Your task to perform on an android device: change notification settings in the gmail app Image 0: 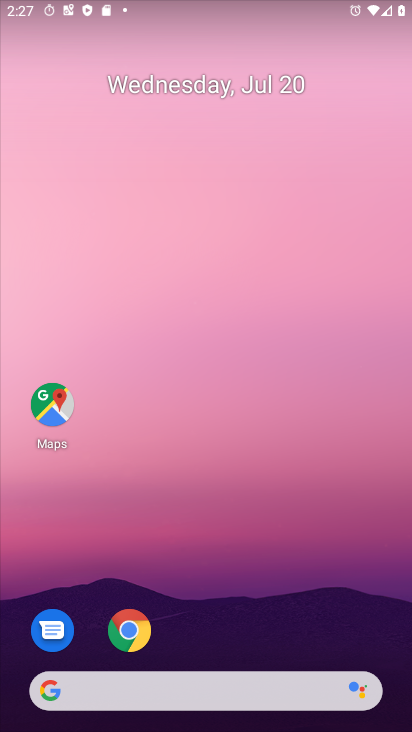
Step 0: press home button
Your task to perform on an android device: change notification settings in the gmail app Image 1: 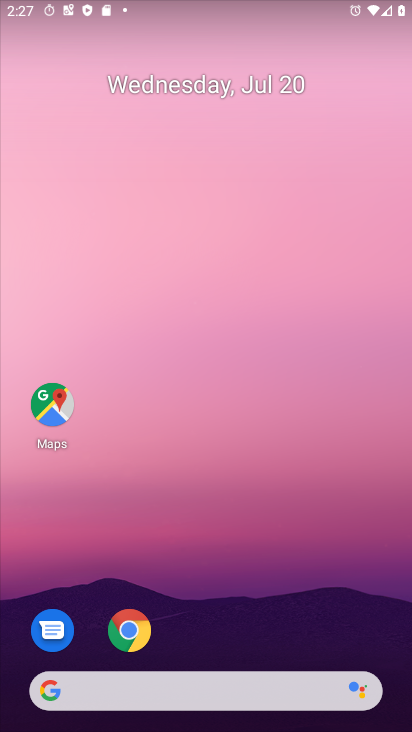
Step 1: drag from (263, 407) to (319, 165)
Your task to perform on an android device: change notification settings in the gmail app Image 2: 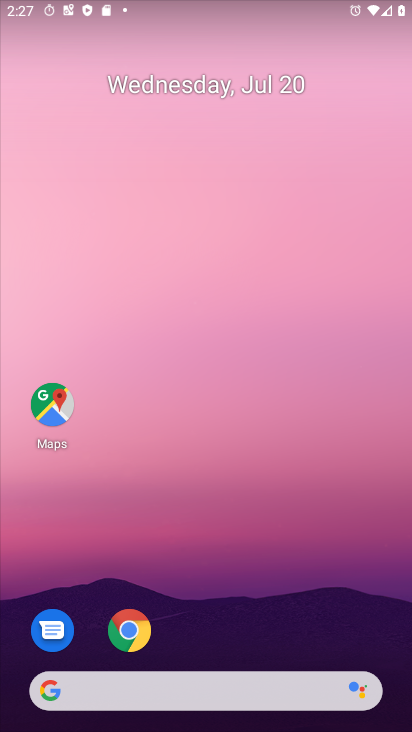
Step 2: drag from (154, 691) to (339, 191)
Your task to perform on an android device: change notification settings in the gmail app Image 3: 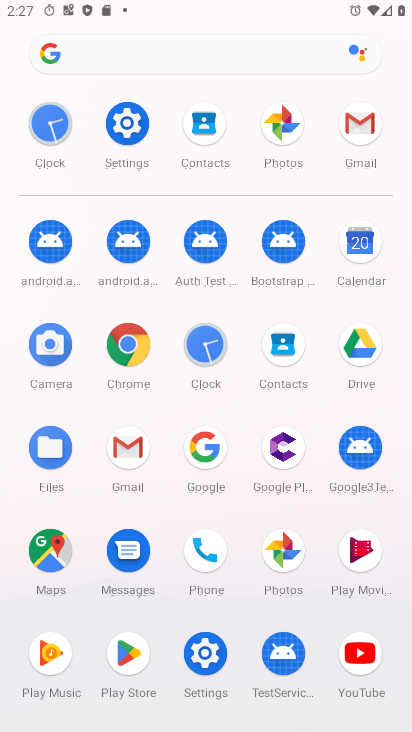
Step 3: click (361, 131)
Your task to perform on an android device: change notification settings in the gmail app Image 4: 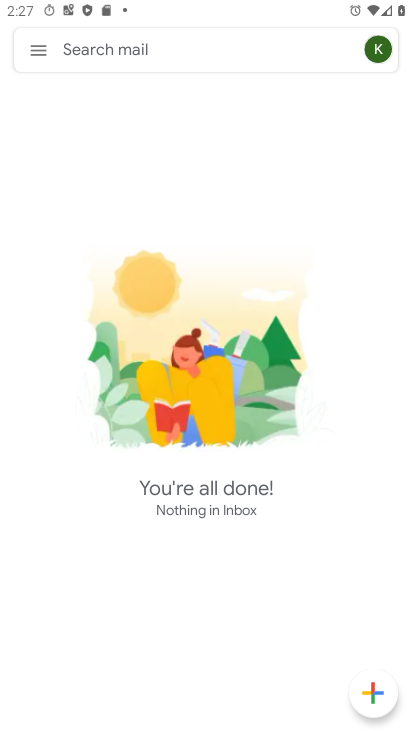
Step 4: click (40, 53)
Your task to perform on an android device: change notification settings in the gmail app Image 5: 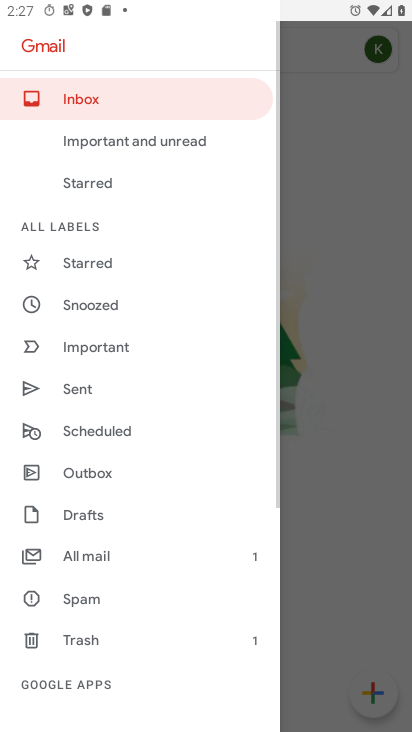
Step 5: drag from (112, 654) to (251, 168)
Your task to perform on an android device: change notification settings in the gmail app Image 6: 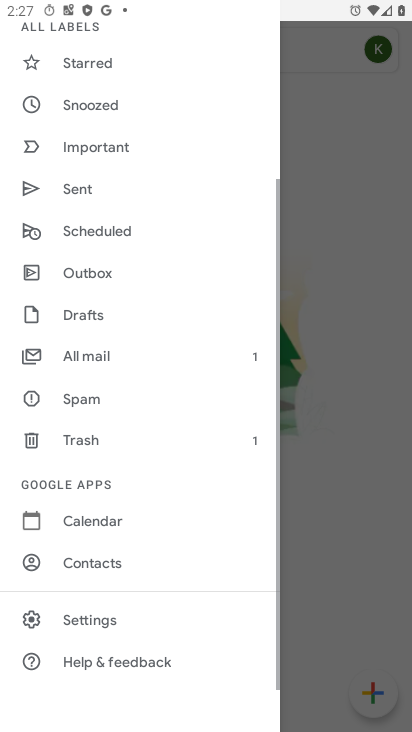
Step 6: click (97, 627)
Your task to perform on an android device: change notification settings in the gmail app Image 7: 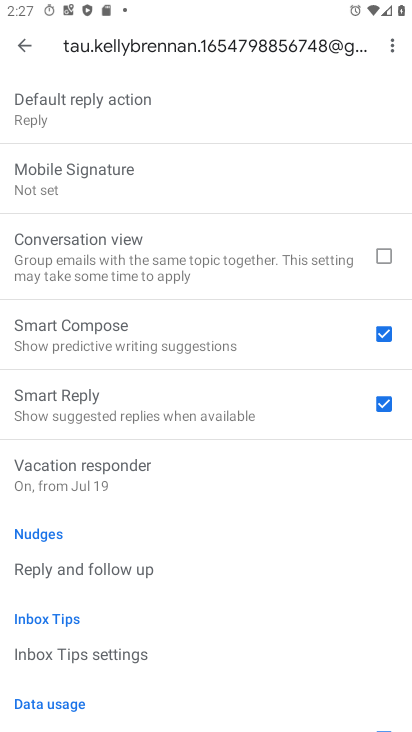
Step 7: drag from (294, 84) to (203, 645)
Your task to perform on an android device: change notification settings in the gmail app Image 8: 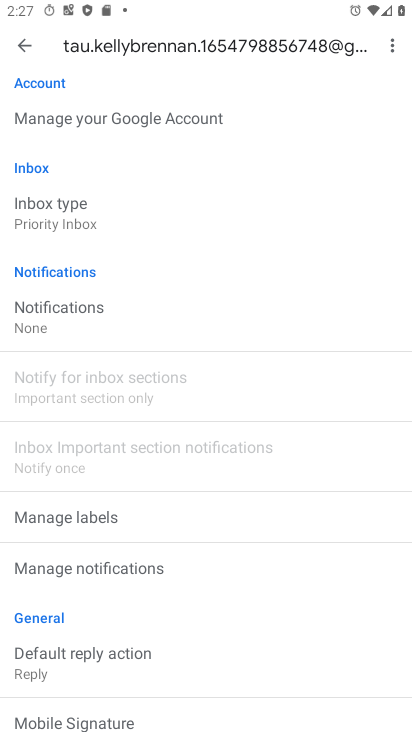
Step 8: click (39, 312)
Your task to perform on an android device: change notification settings in the gmail app Image 9: 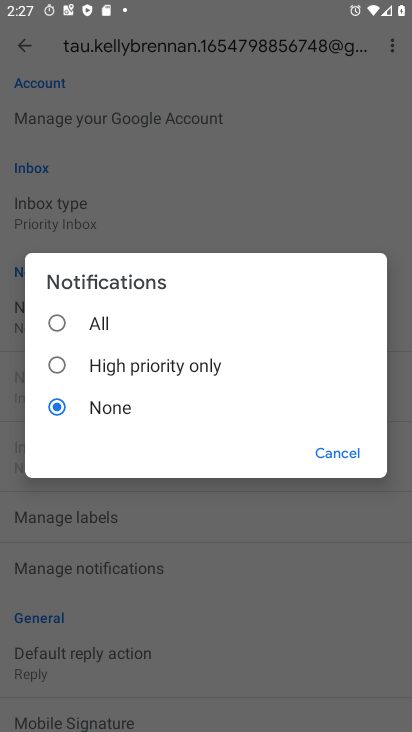
Step 9: click (58, 322)
Your task to perform on an android device: change notification settings in the gmail app Image 10: 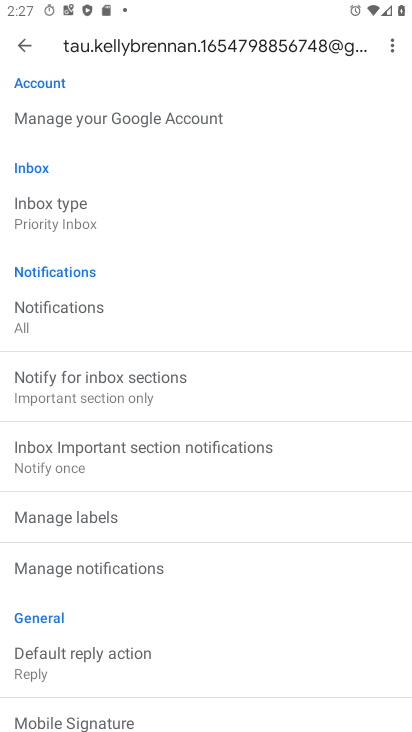
Step 10: task complete